Your task to perform on an android device: Search for flights from NYC to Chicago Image 0: 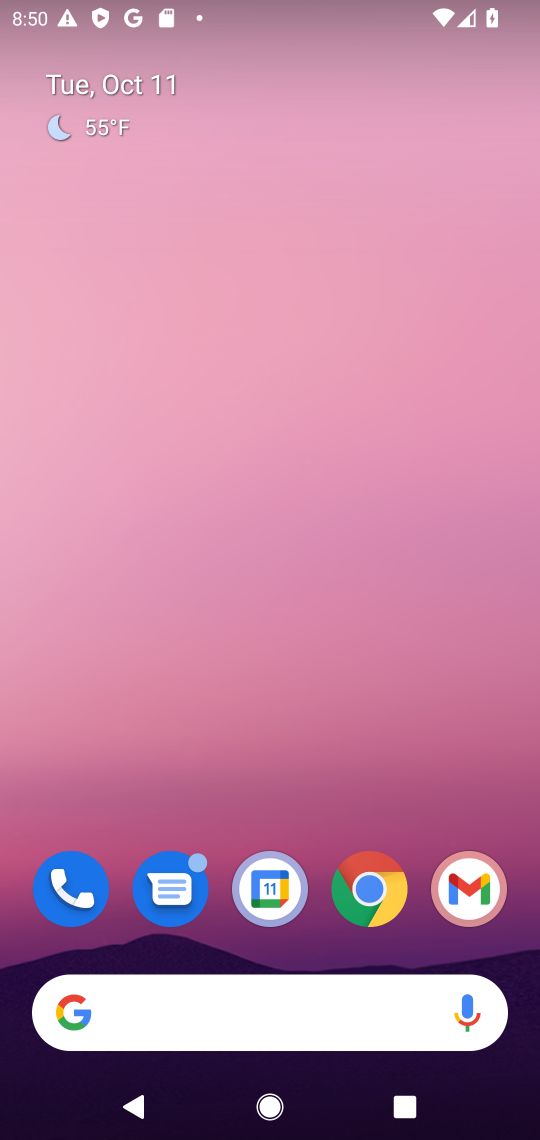
Step 0: click (239, 1009)
Your task to perform on an android device: Search for flights from NYC to Chicago Image 1: 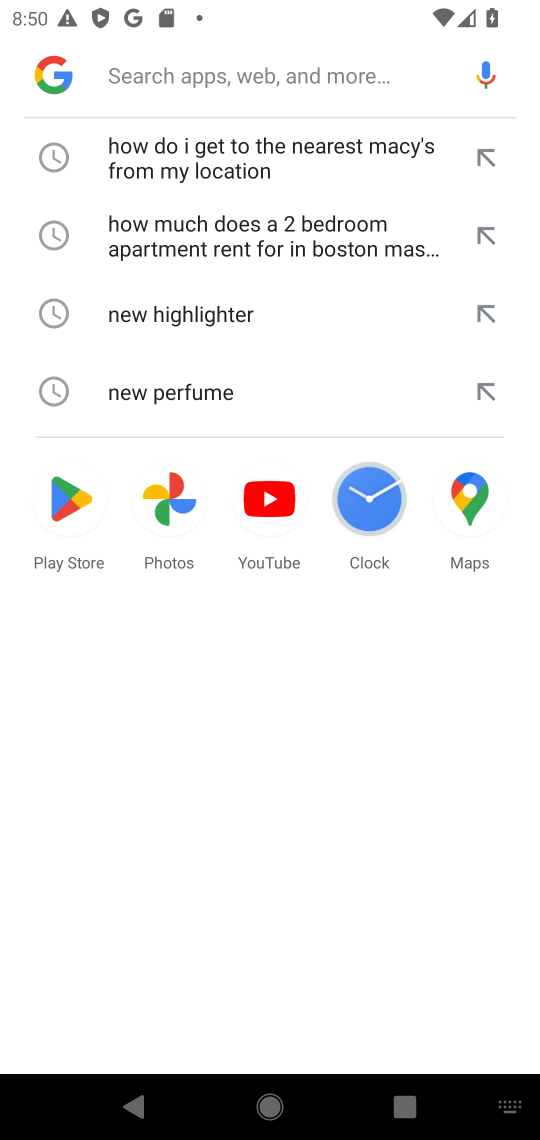
Step 1: click (168, 76)
Your task to perform on an android device: Search for flights from NYC to Chicago Image 2: 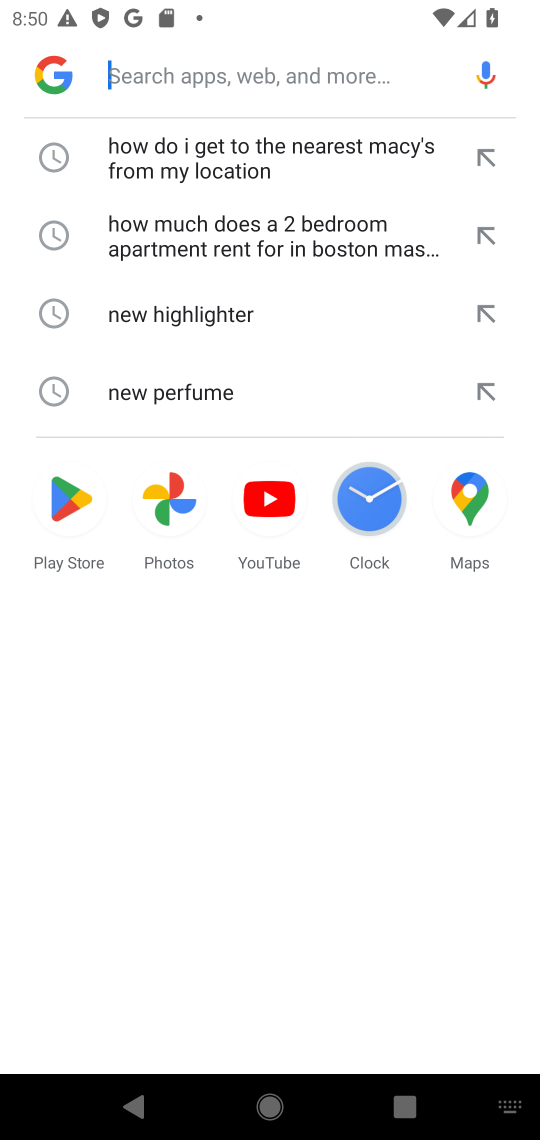
Step 2: type "flights from NYC to Chicago"
Your task to perform on an android device: Search for flights from NYC to Chicago Image 3: 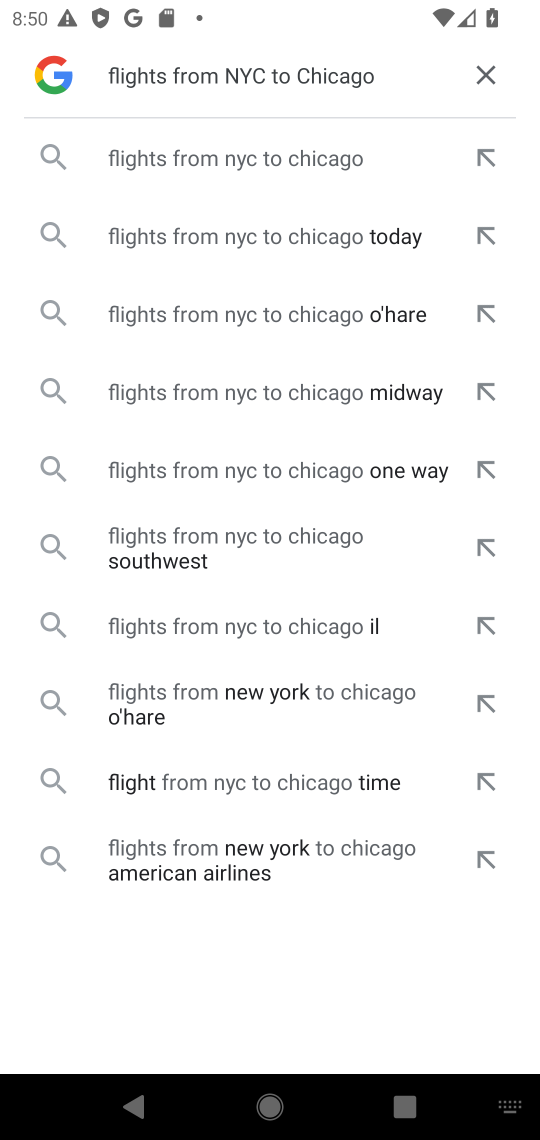
Step 3: click (258, 163)
Your task to perform on an android device: Search for flights from NYC to Chicago Image 4: 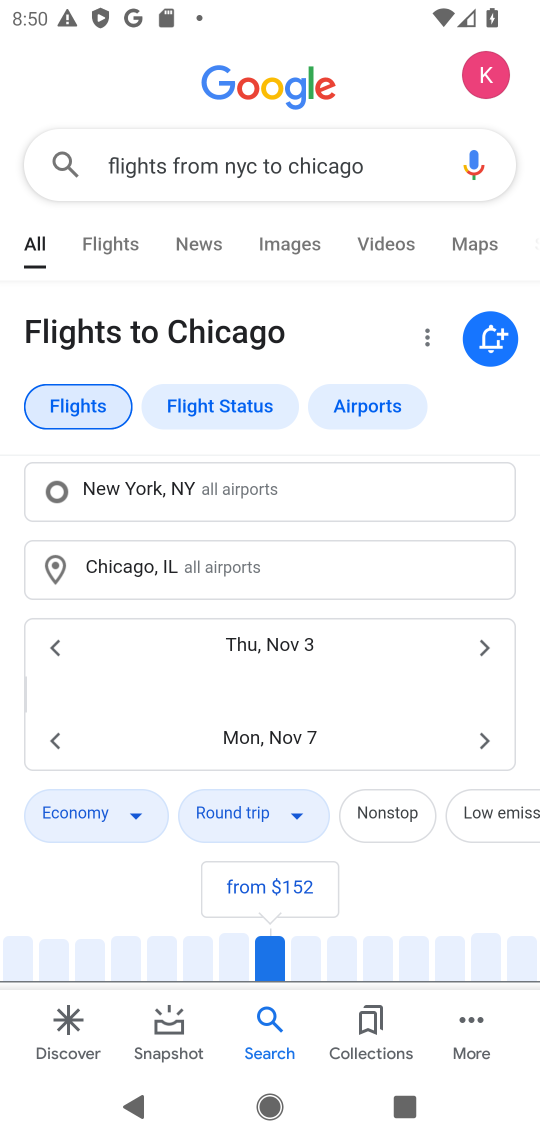
Step 4: task complete